Your task to perform on an android device: Open internet settings Image 0: 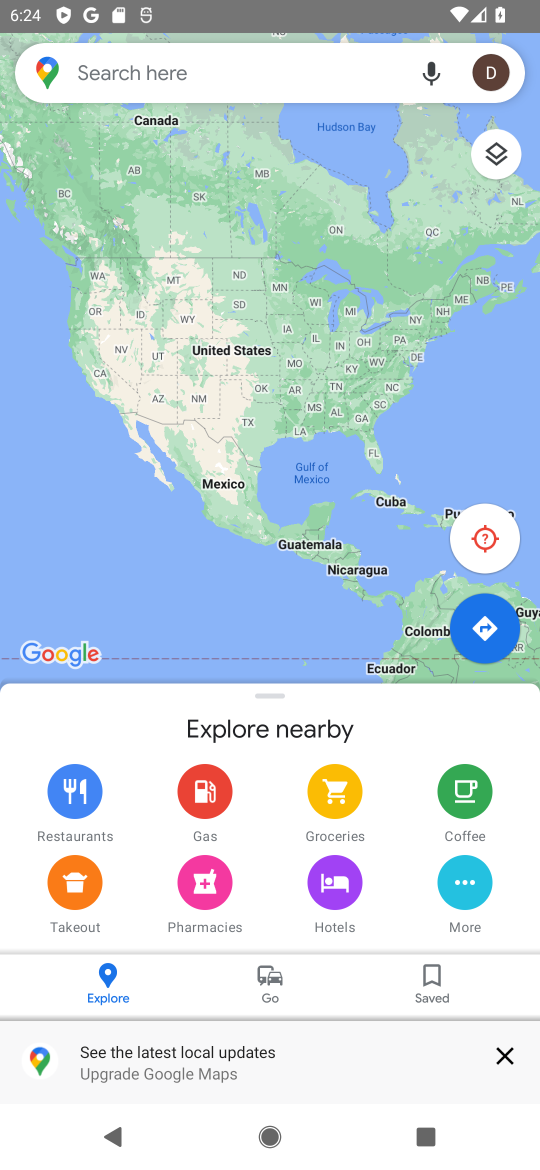
Step 0: press home button
Your task to perform on an android device: Open internet settings Image 1: 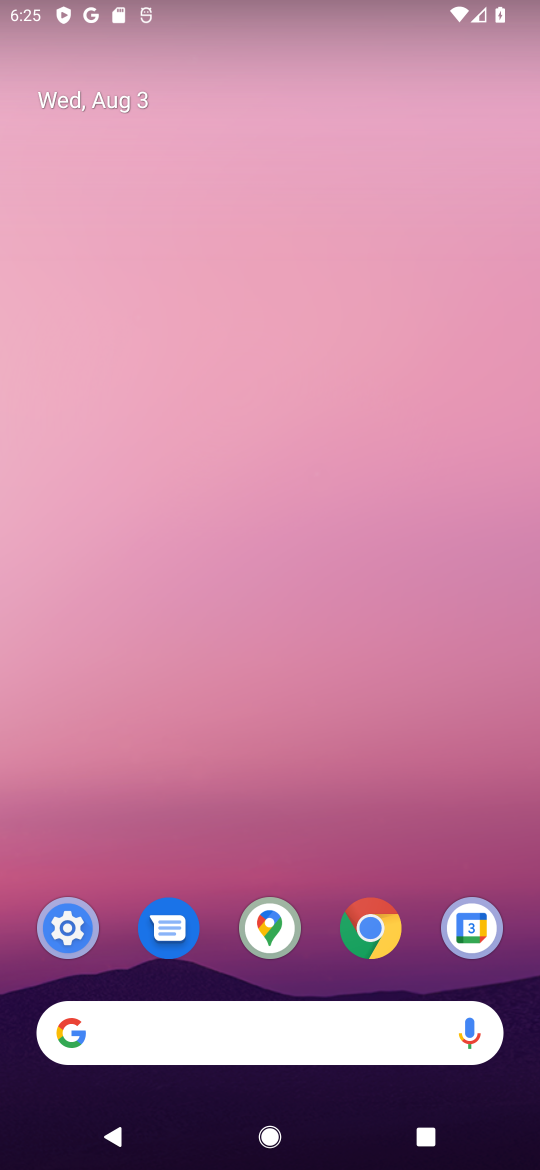
Step 1: drag from (365, 805) to (330, 91)
Your task to perform on an android device: Open internet settings Image 2: 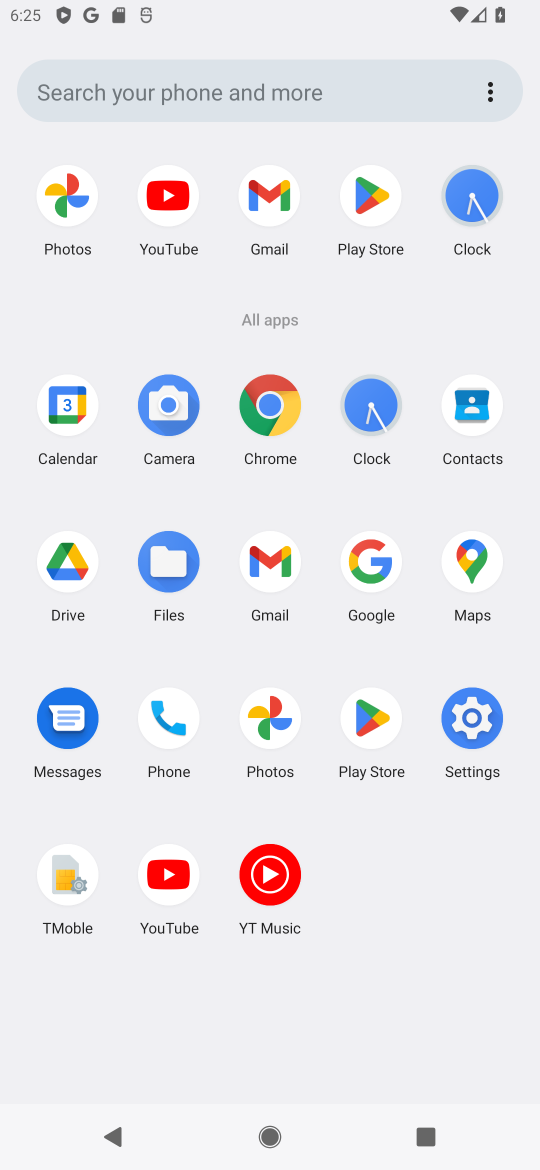
Step 2: click (480, 720)
Your task to perform on an android device: Open internet settings Image 3: 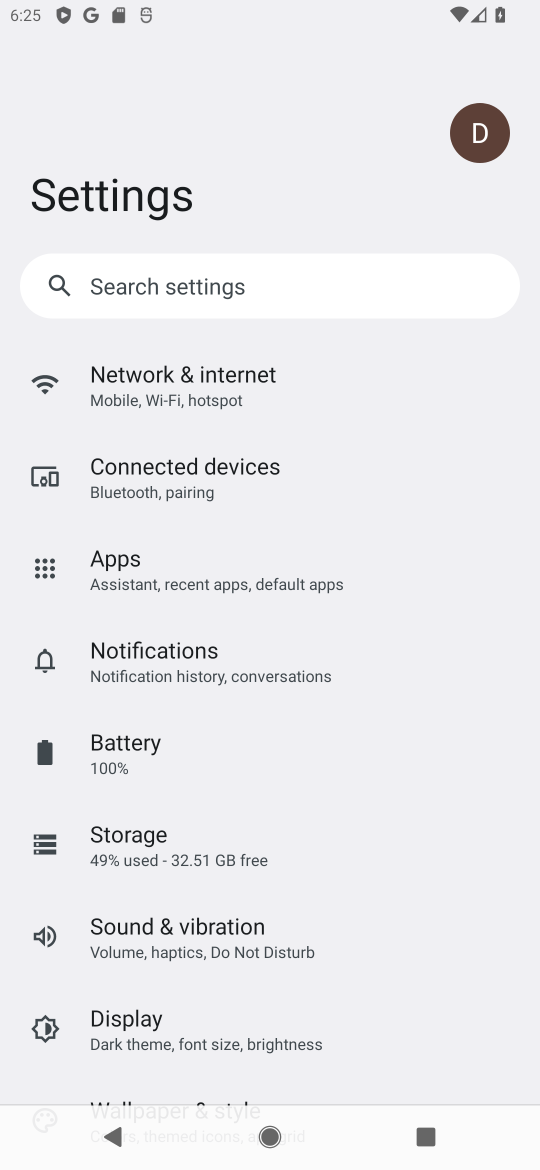
Step 3: drag from (437, 779) to (447, 683)
Your task to perform on an android device: Open internet settings Image 4: 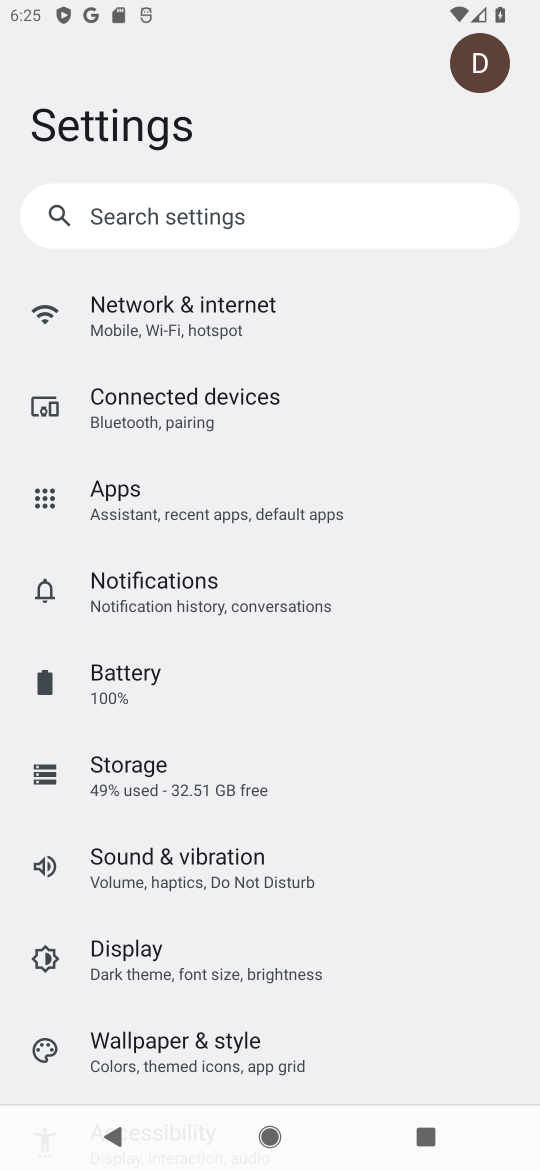
Step 4: drag from (407, 882) to (409, 787)
Your task to perform on an android device: Open internet settings Image 5: 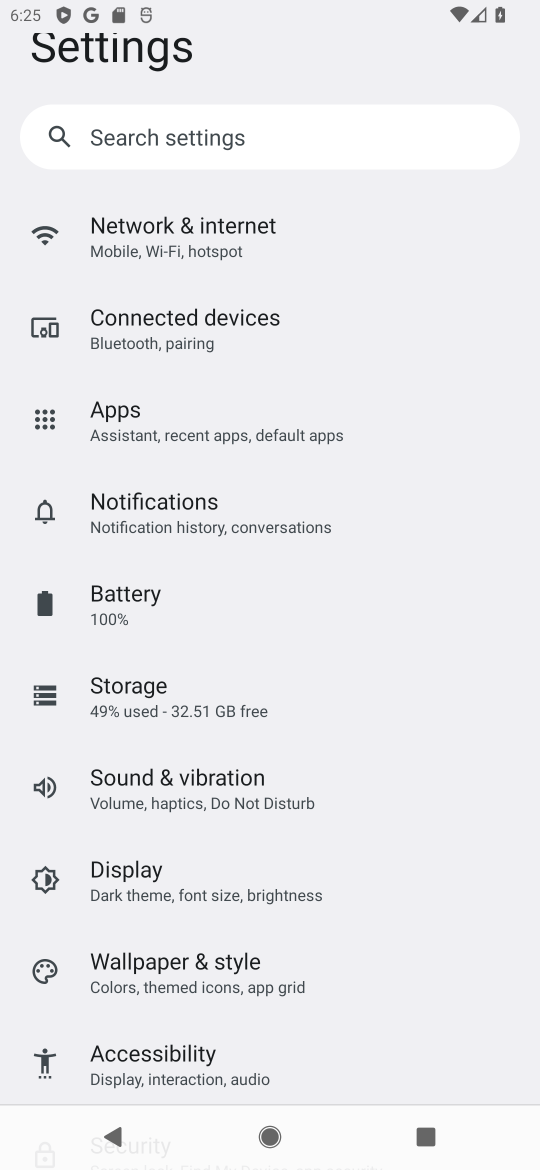
Step 5: drag from (433, 941) to (458, 763)
Your task to perform on an android device: Open internet settings Image 6: 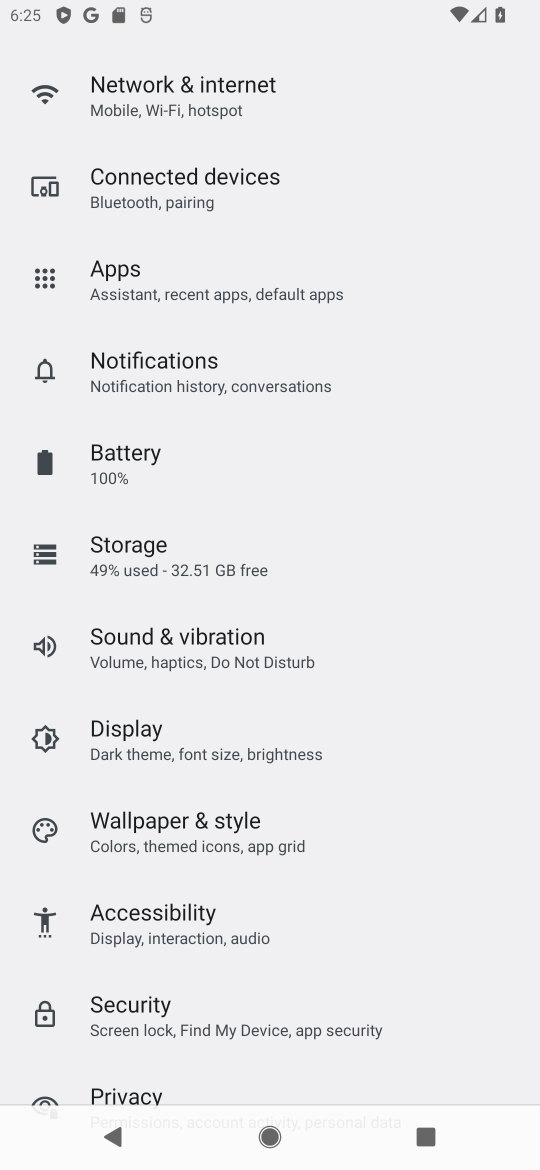
Step 6: drag from (457, 906) to (437, 715)
Your task to perform on an android device: Open internet settings Image 7: 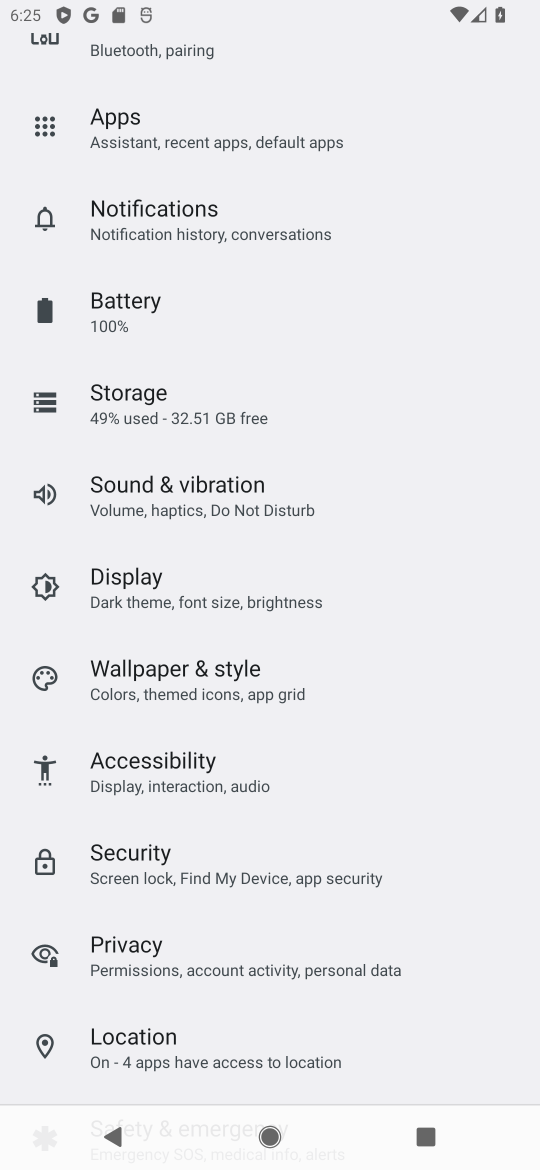
Step 7: drag from (446, 1003) to (440, 808)
Your task to perform on an android device: Open internet settings Image 8: 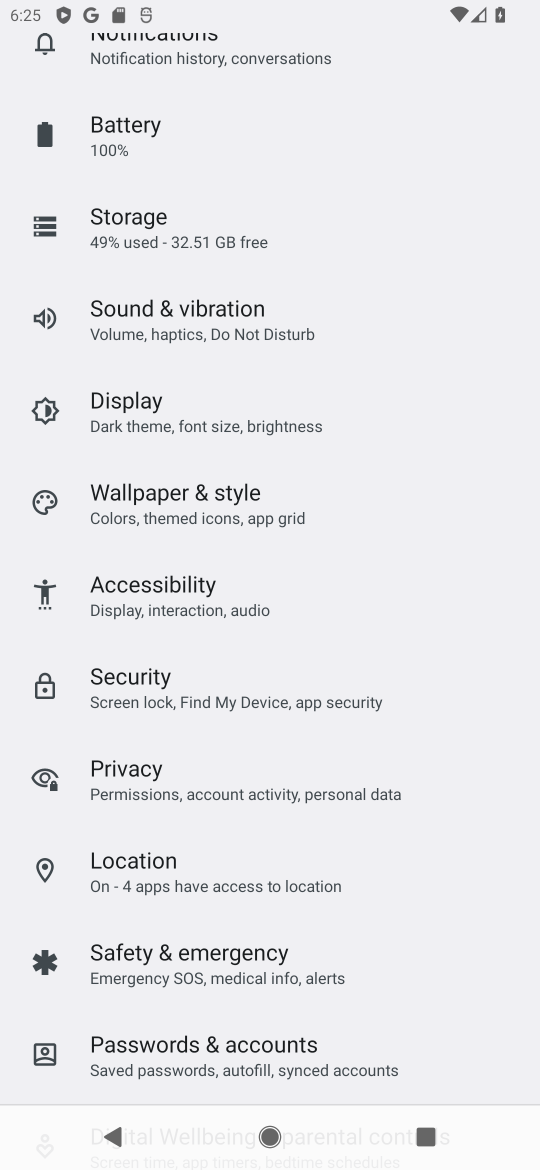
Step 8: drag from (449, 609) to (456, 795)
Your task to perform on an android device: Open internet settings Image 9: 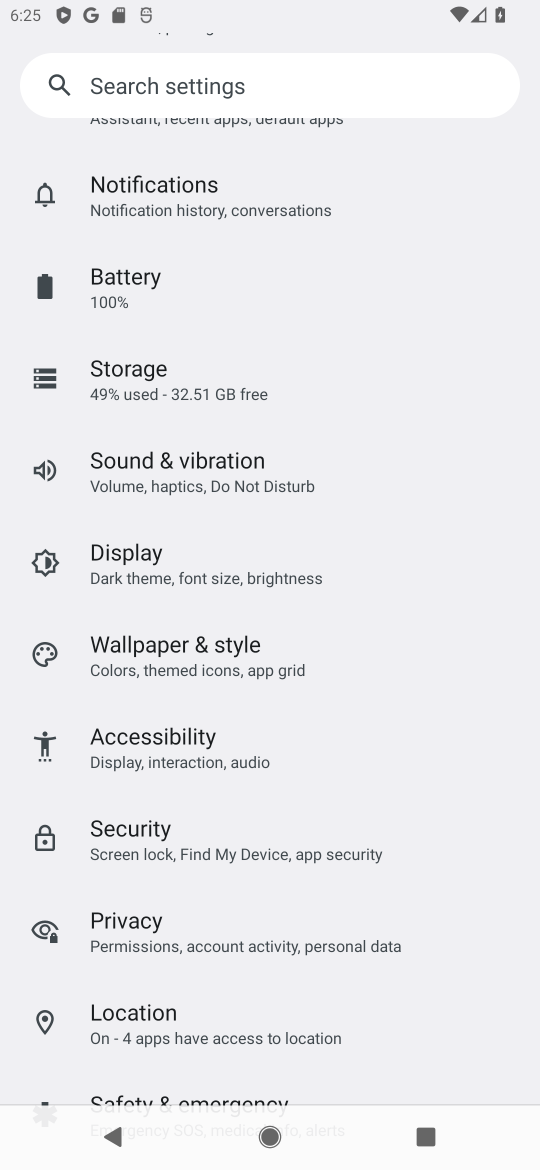
Step 9: drag from (458, 580) to (467, 753)
Your task to perform on an android device: Open internet settings Image 10: 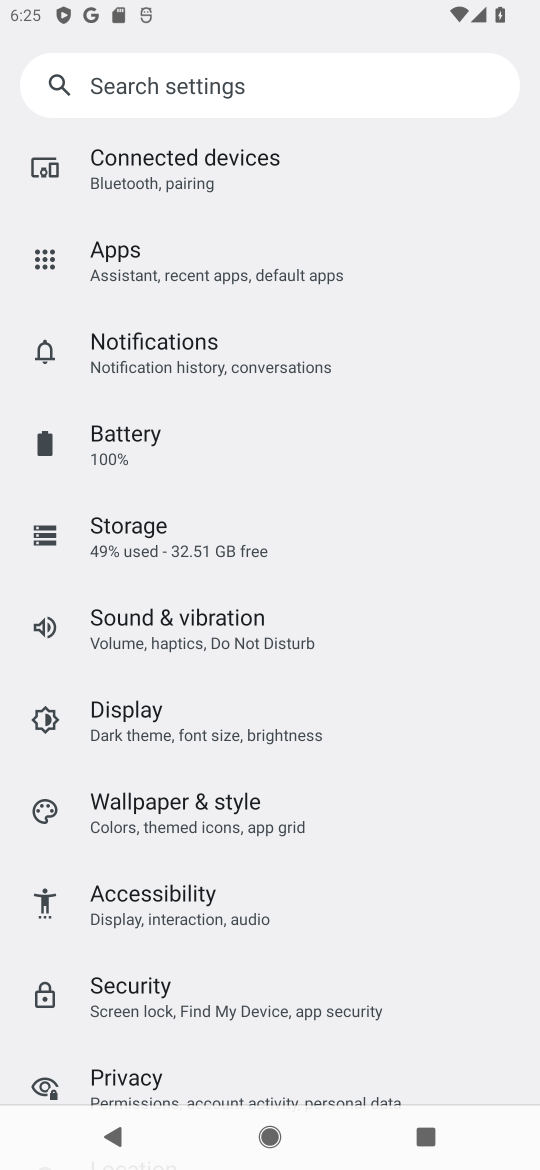
Step 10: drag from (461, 574) to (461, 786)
Your task to perform on an android device: Open internet settings Image 11: 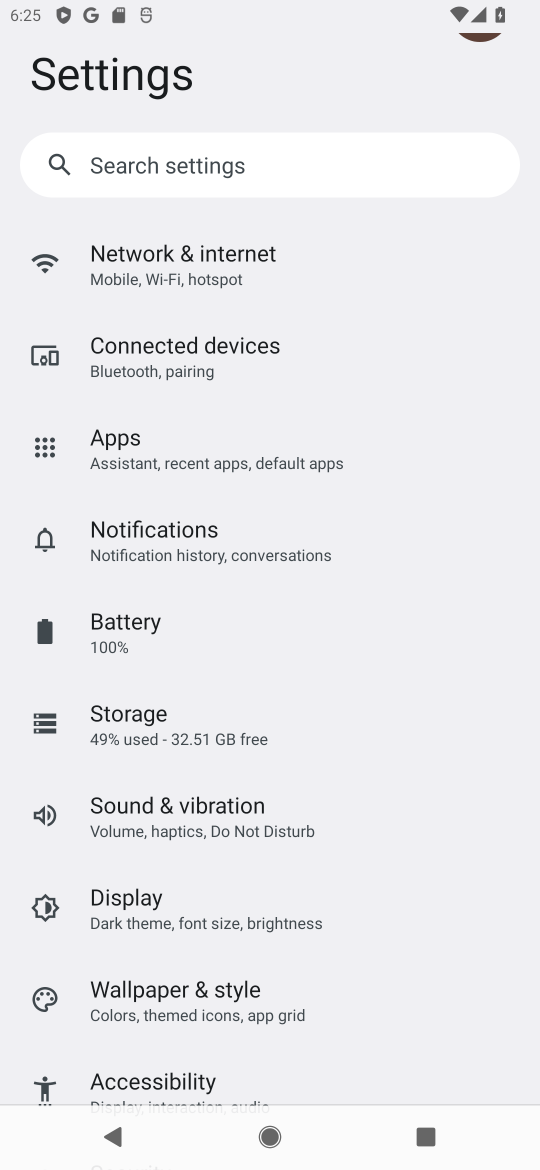
Step 11: drag from (445, 449) to (447, 680)
Your task to perform on an android device: Open internet settings Image 12: 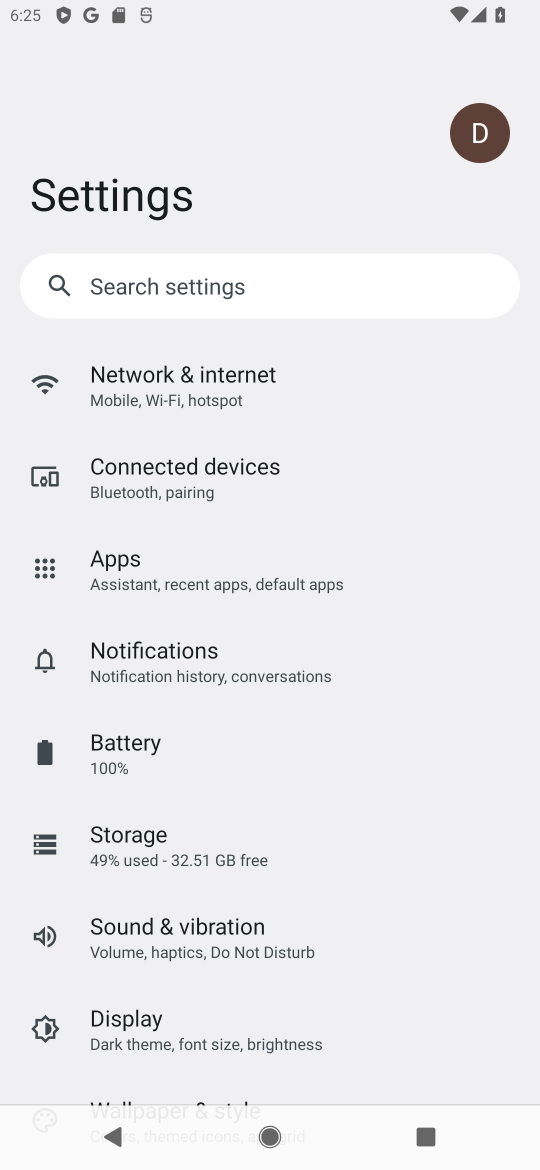
Step 12: click (305, 383)
Your task to perform on an android device: Open internet settings Image 13: 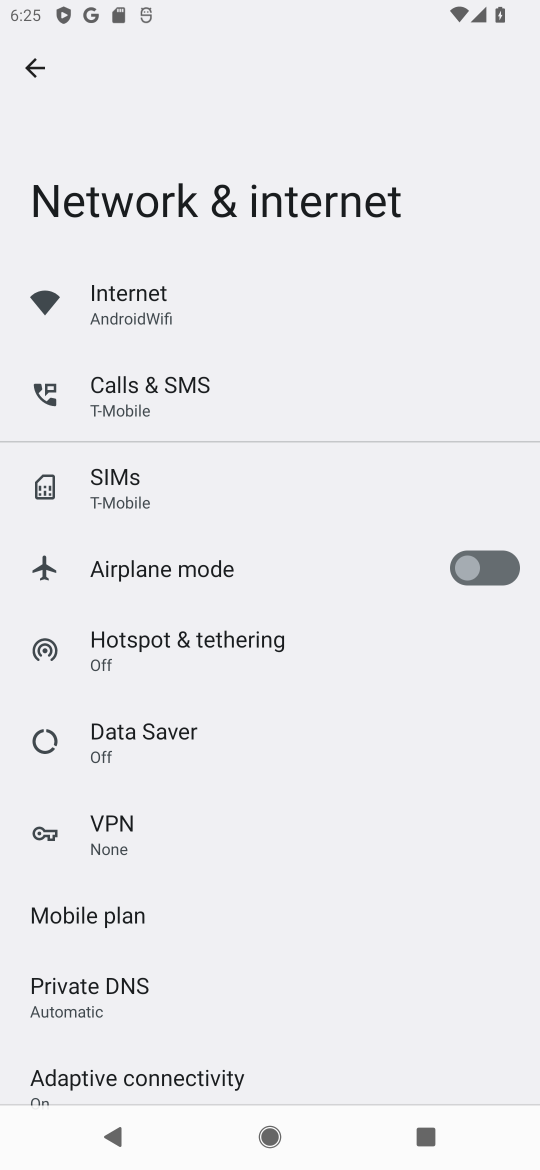
Step 13: task complete